Your task to perform on an android device: Go to eBay Image 0: 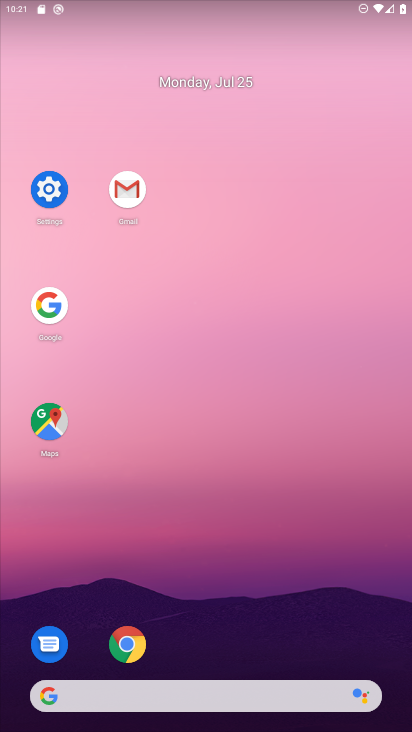
Step 0: click (140, 649)
Your task to perform on an android device: Go to eBay Image 1: 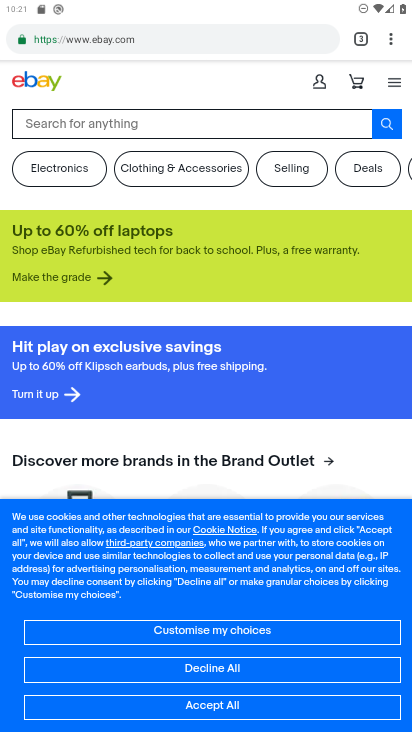
Step 1: task complete